Your task to perform on an android device: Go to network settings Image 0: 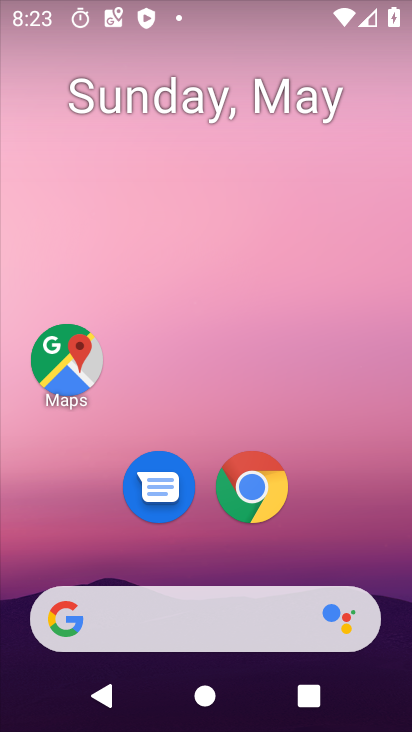
Step 0: drag from (22, 653) to (307, 124)
Your task to perform on an android device: Go to network settings Image 1: 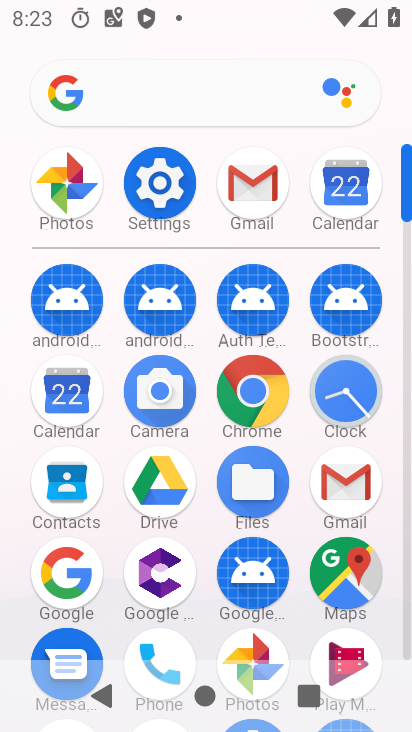
Step 1: click (155, 183)
Your task to perform on an android device: Go to network settings Image 2: 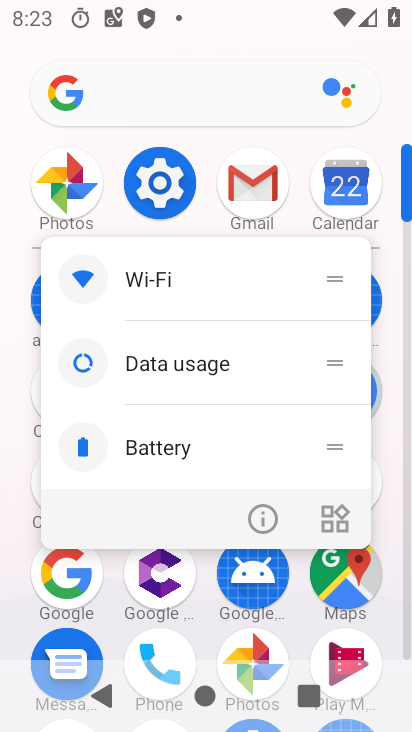
Step 2: click (160, 178)
Your task to perform on an android device: Go to network settings Image 3: 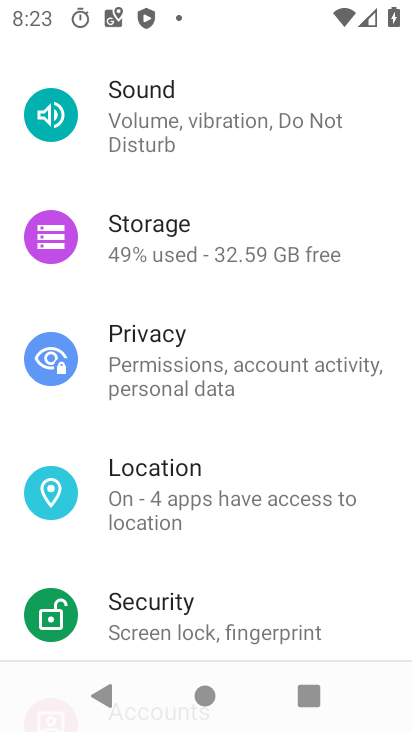
Step 3: drag from (315, 100) to (298, 515)
Your task to perform on an android device: Go to network settings Image 4: 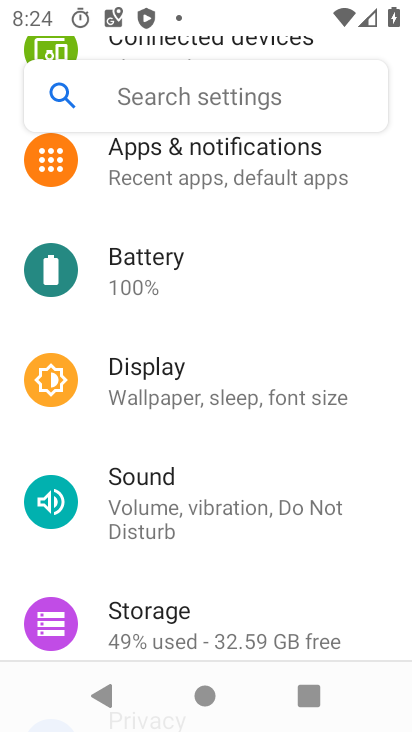
Step 4: drag from (352, 199) to (272, 528)
Your task to perform on an android device: Go to network settings Image 5: 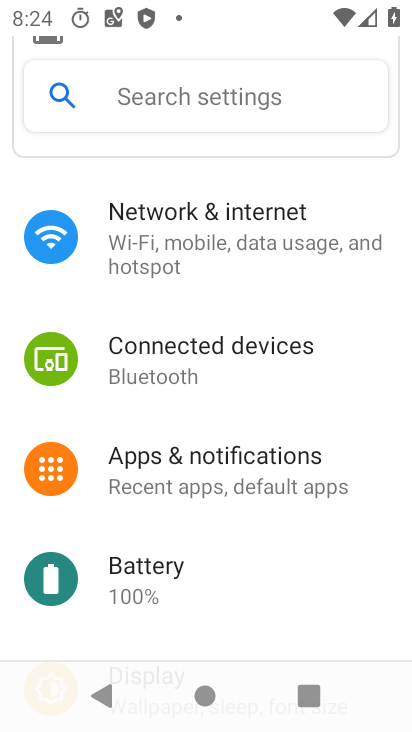
Step 5: click (286, 197)
Your task to perform on an android device: Go to network settings Image 6: 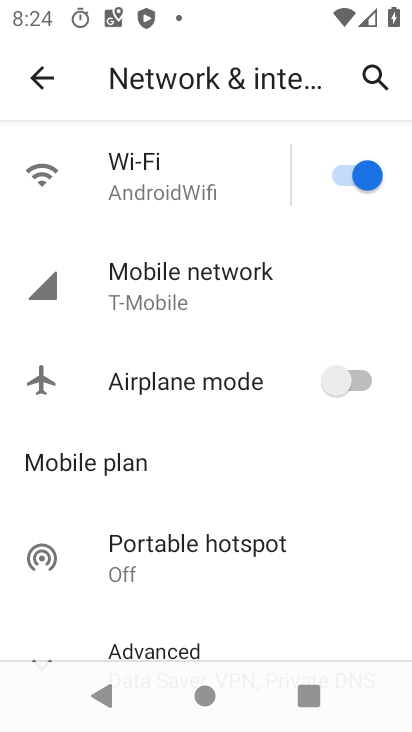
Step 6: click (260, 260)
Your task to perform on an android device: Go to network settings Image 7: 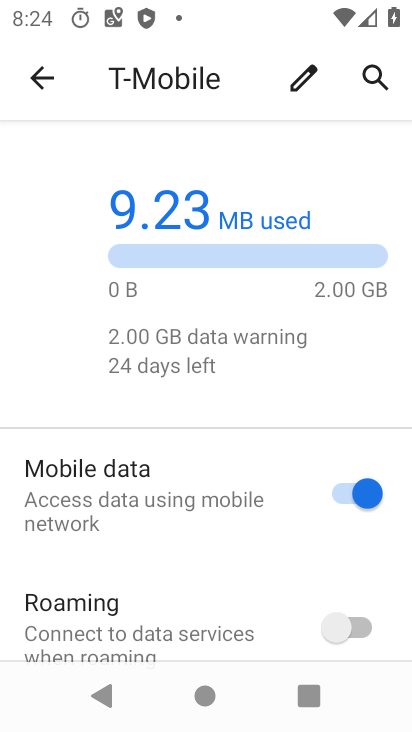
Step 7: task complete